Your task to perform on an android device: see creations saved in the google photos Image 0: 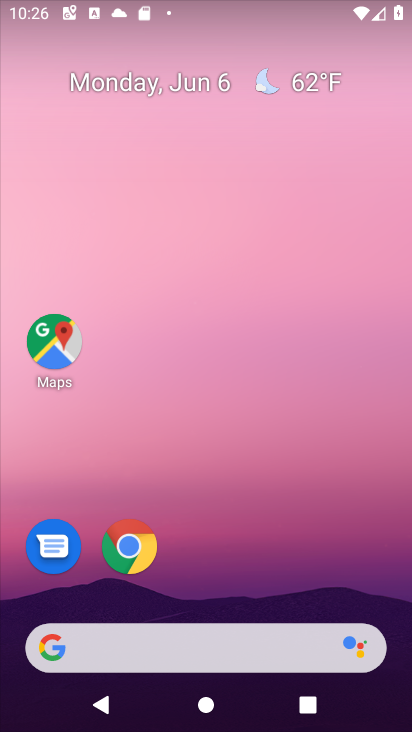
Step 0: drag from (403, 652) to (304, 86)
Your task to perform on an android device: see creations saved in the google photos Image 1: 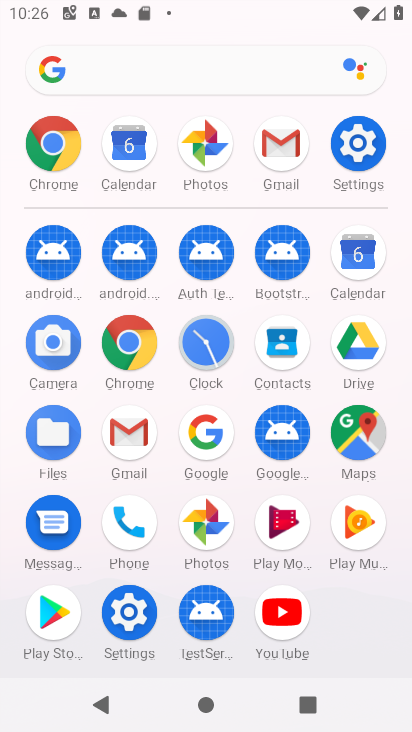
Step 1: click (206, 523)
Your task to perform on an android device: see creations saved in the google photos Image 2: 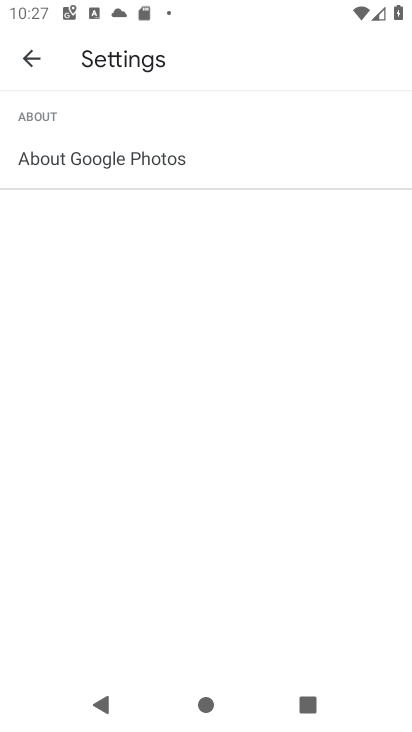
Step 2: task complete